Your task to perform on an android device: empty trash in the gmail app Image 0: 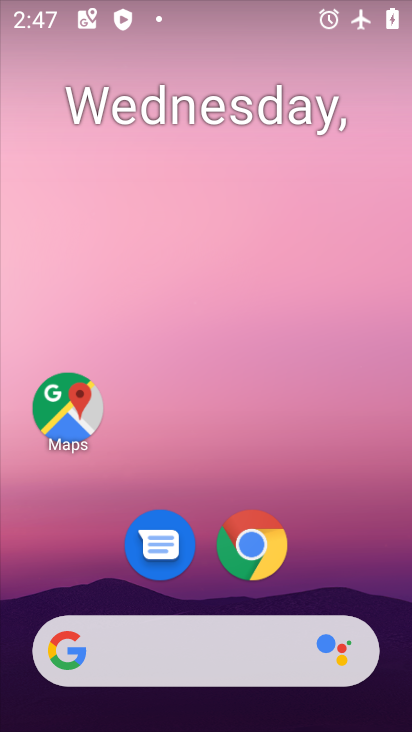
Step 0: drag from (338, 507) to (333, 125)
Your task to perform on an android device: empty trash in the gmail app Image 1: 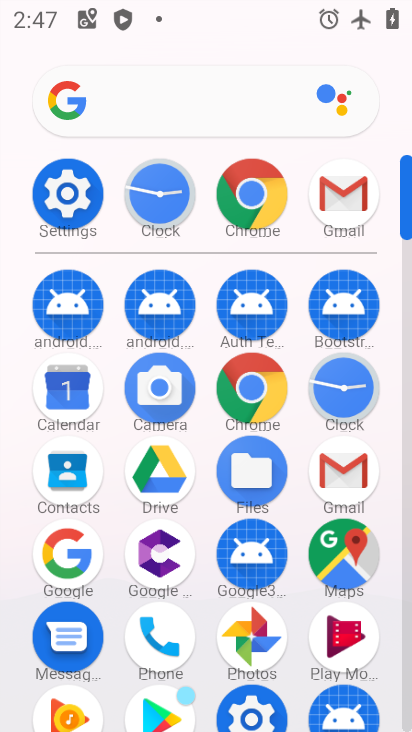
Step 1: click (357, 207)
Your task to perform on an android device: empty trash in the gmail app Image 2: 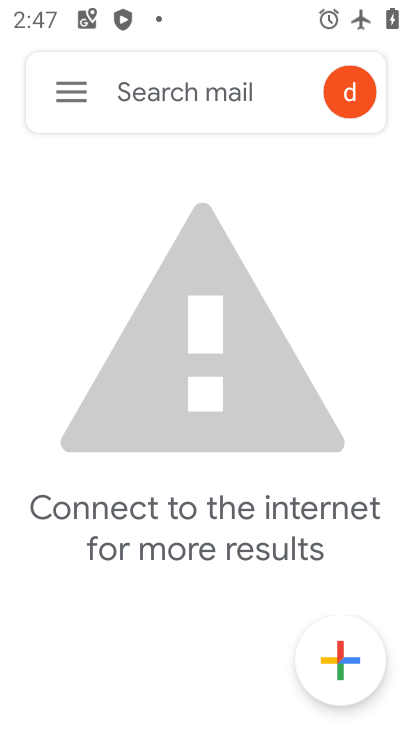
Step 2: click (66, 82)
Your task to perform on an android device: empty trash in the gmail app Image 3: 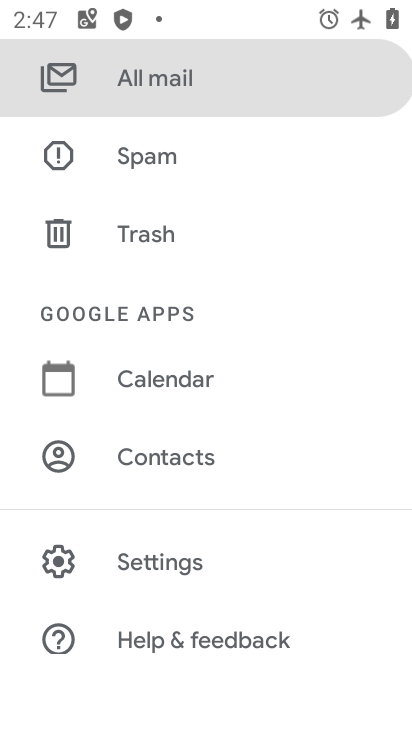
Step 3: click (149, 228)
Your task to perform on an android device: empty trash in the gmail app Image 4: 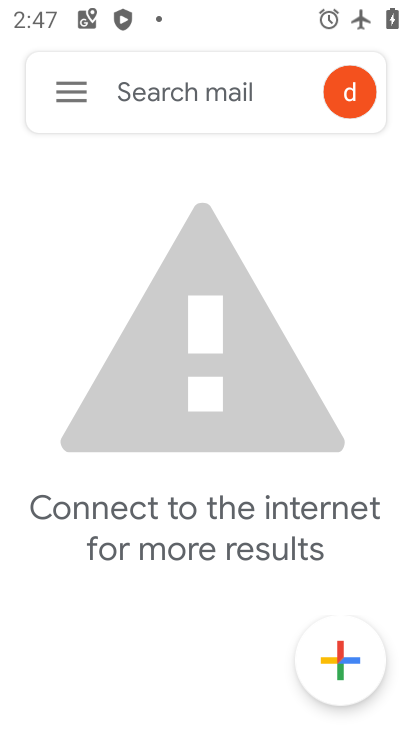
Step 4: task complete